Your task to perform on an android device: check android version Image 0: 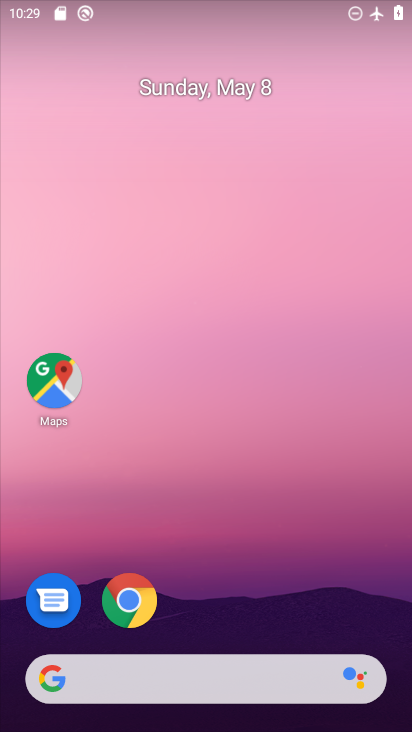
Step 0: drag from (198, 723) to (188, 255)
Your task to perform on an android device: check android version Image 1: 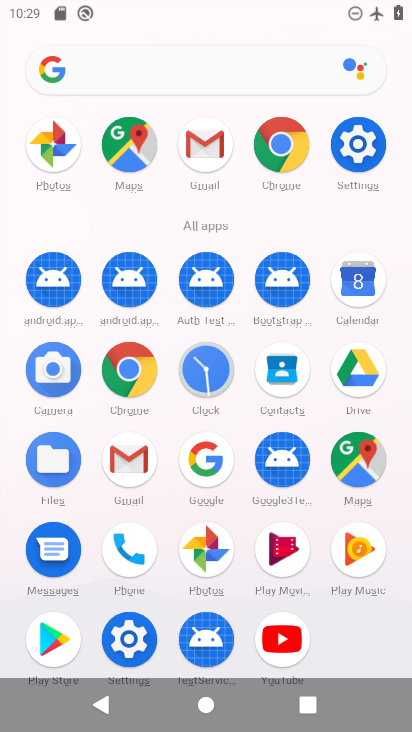
Step 1: click (364, 144)
Your task to perform on an android device: check android version Image 2: 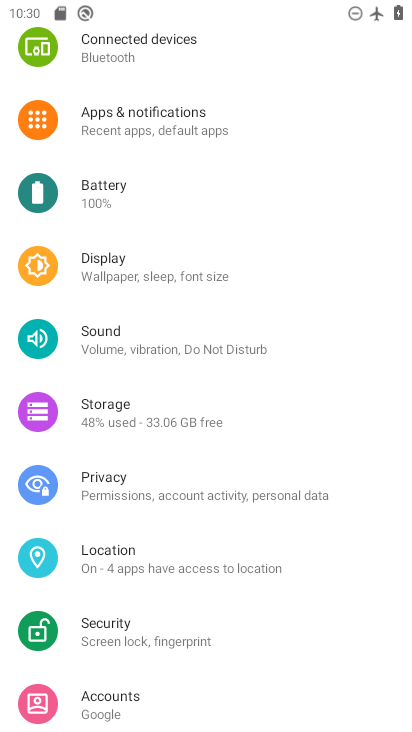
Step 2: drag from (240, 686) to (252, 322)
Your task to perform on an android device: check android version Image 3: 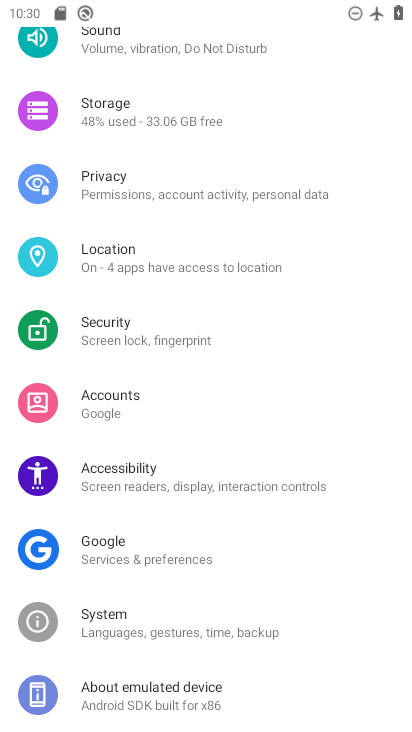
Step 3: drag from (251, 704) to (259, 409)
Your task to perform on an android device: check android version Image 4: 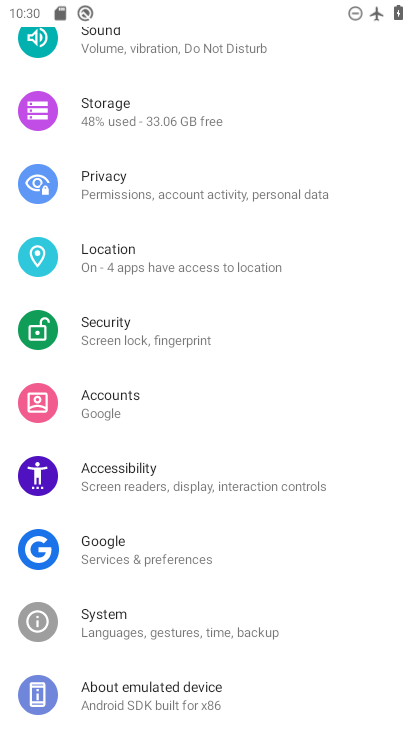
Step 4: click (134, 686)
Your task to perform on an android device: check android version Image 5: 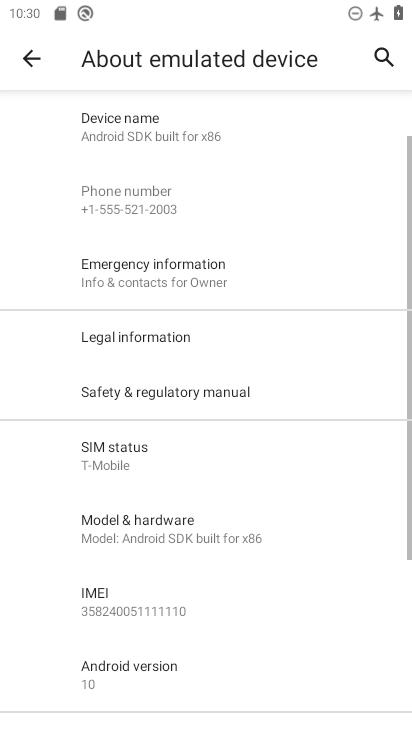
Step 5: click (131, 663)
Your task to perform on an android device: check android version Image 6: 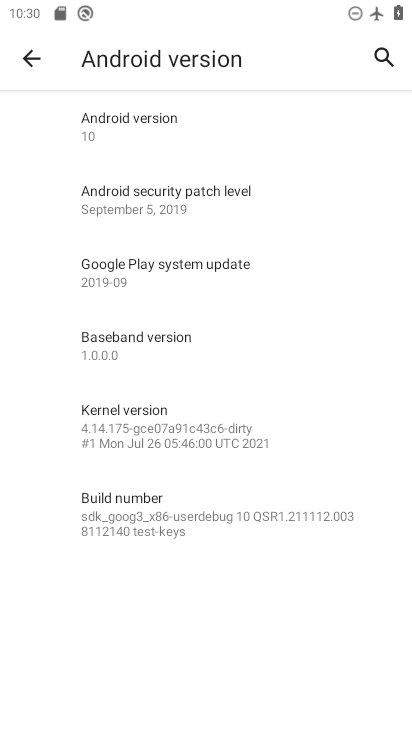
Step 6: task complete